Your task to perform on an android device: turn off notifications in google photos Image 0: 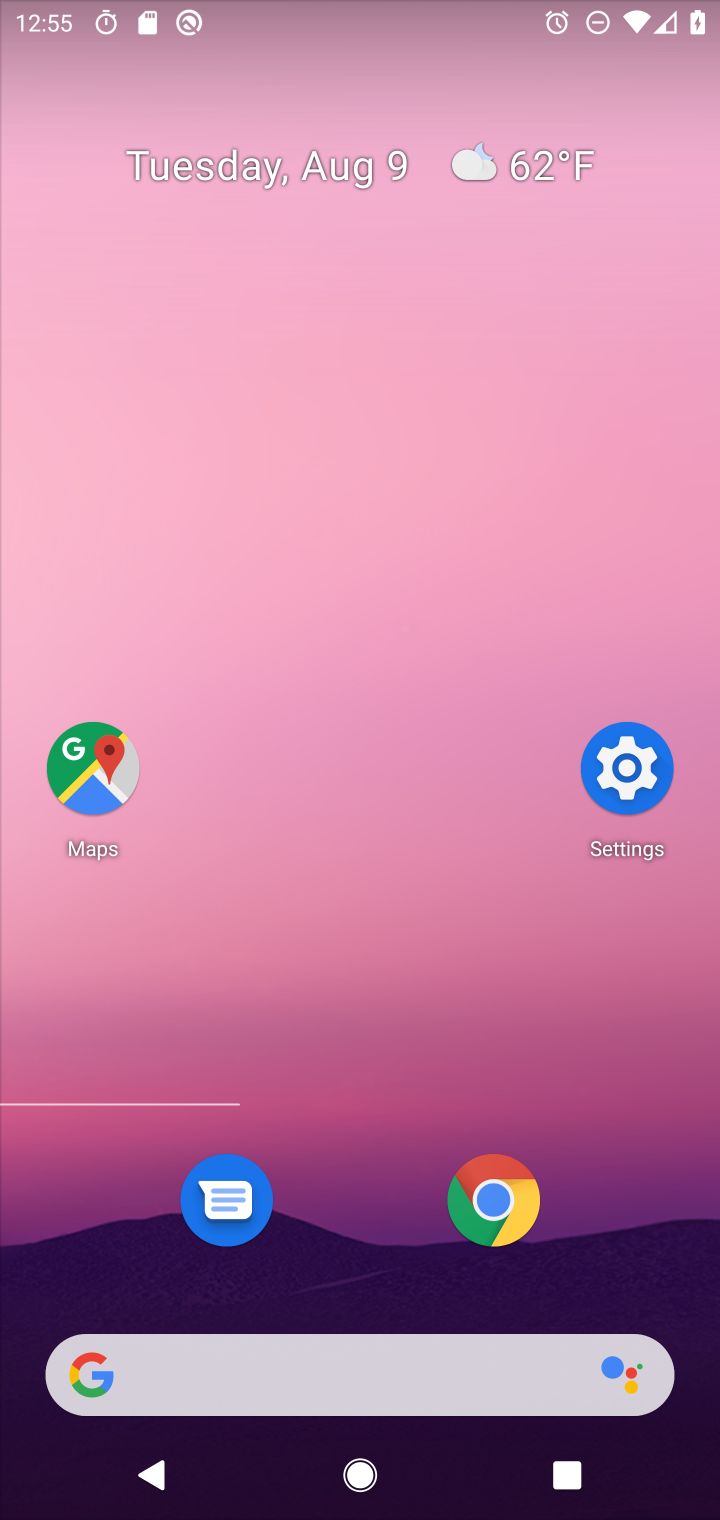
Step 0: drag from (323, 1348) to (584, 191)
Your task to perform on an android device: turn off notifications in google photos Image 1: 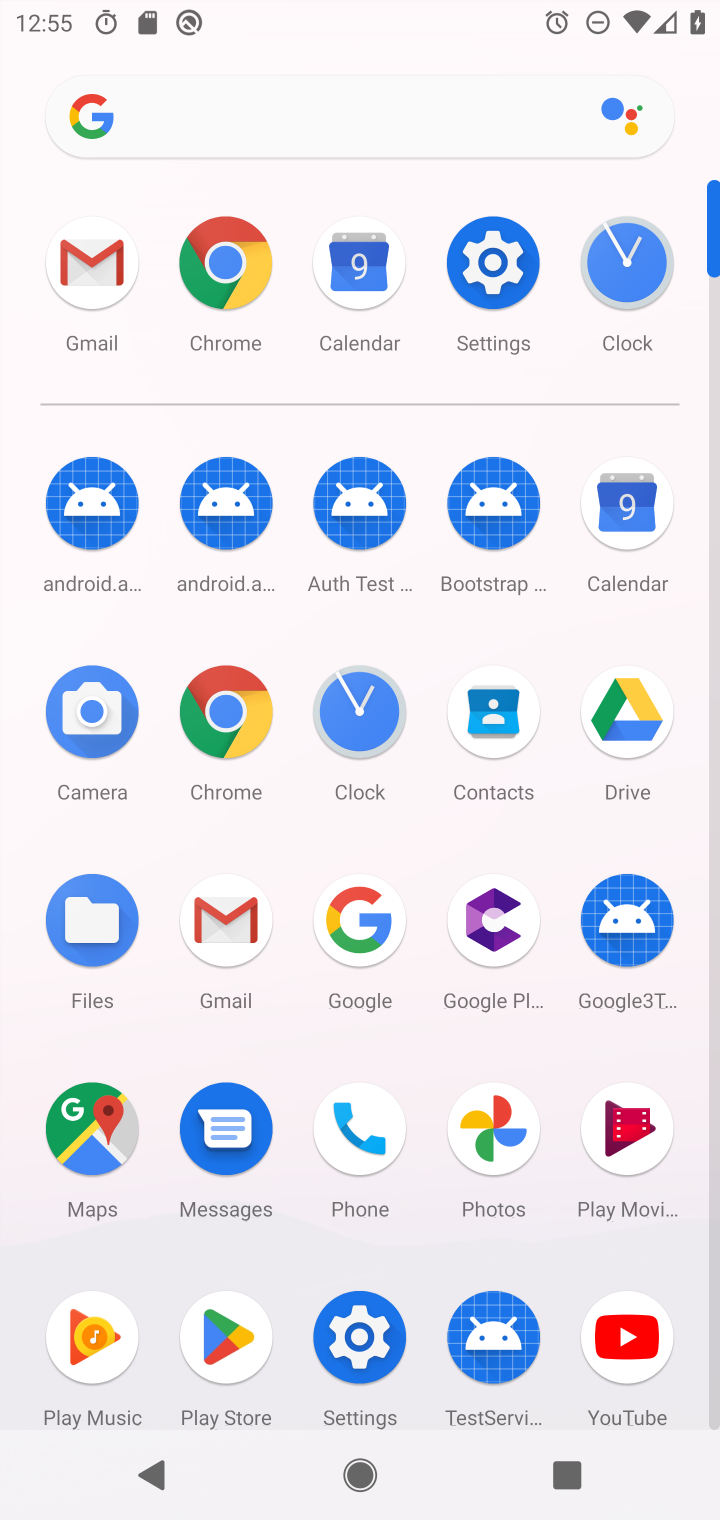
Step 1: click (483, 1136)
Your task to perform on an android device: turn off notifications in google photos Image 2: 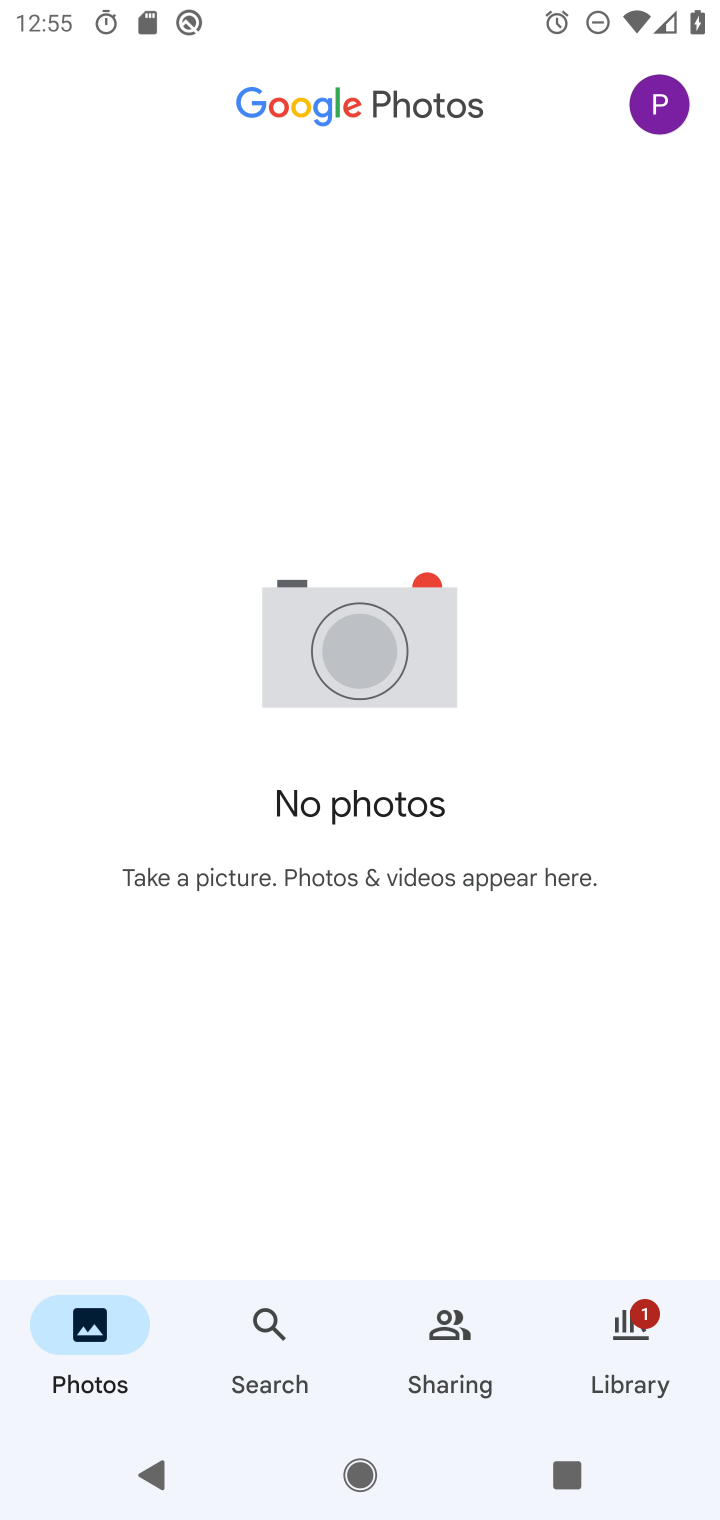
Step 2: click (655, 108)
Your task to perform on an android device: turn off notifications in google photos Image 3: 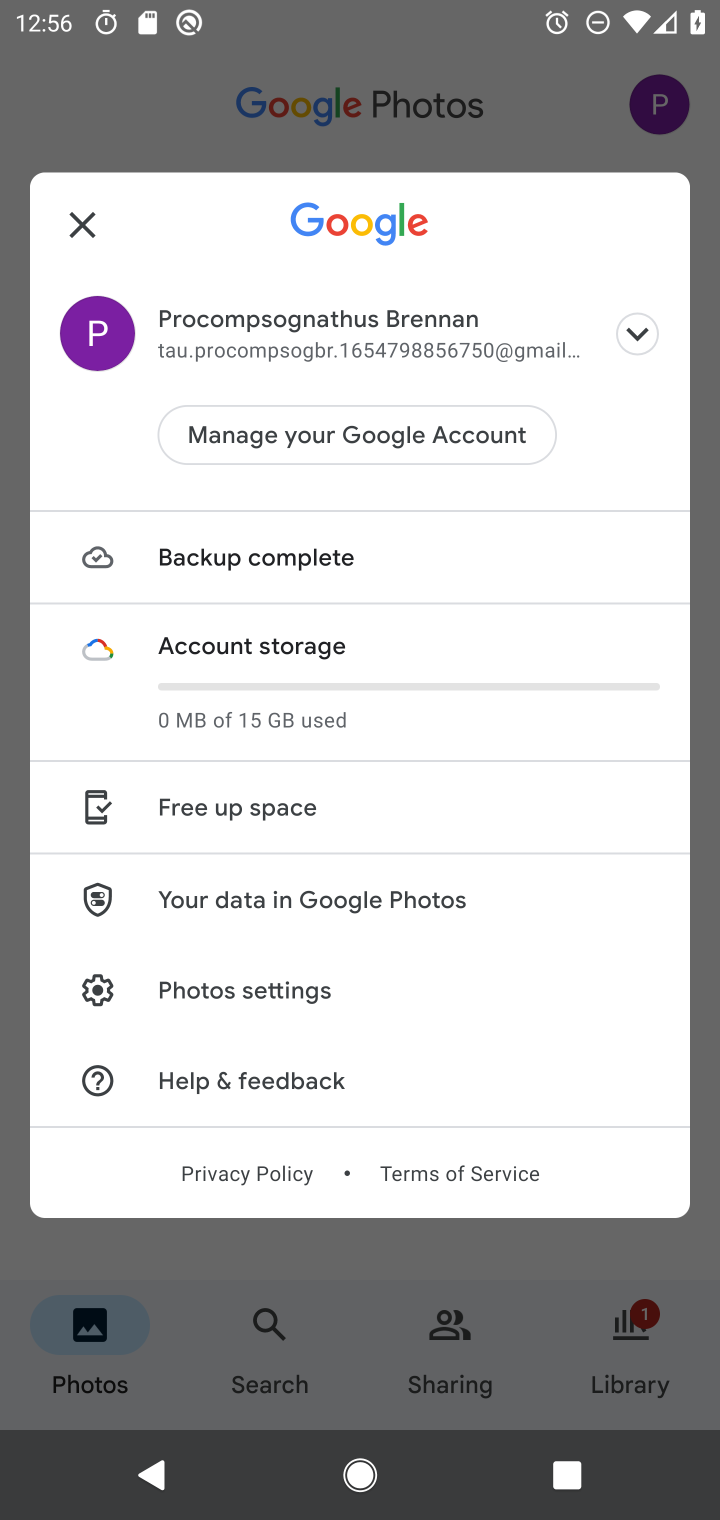
Step 3: click (237, 993)
Your task to perform on an android device: turn off notifications in google photos Image 4: 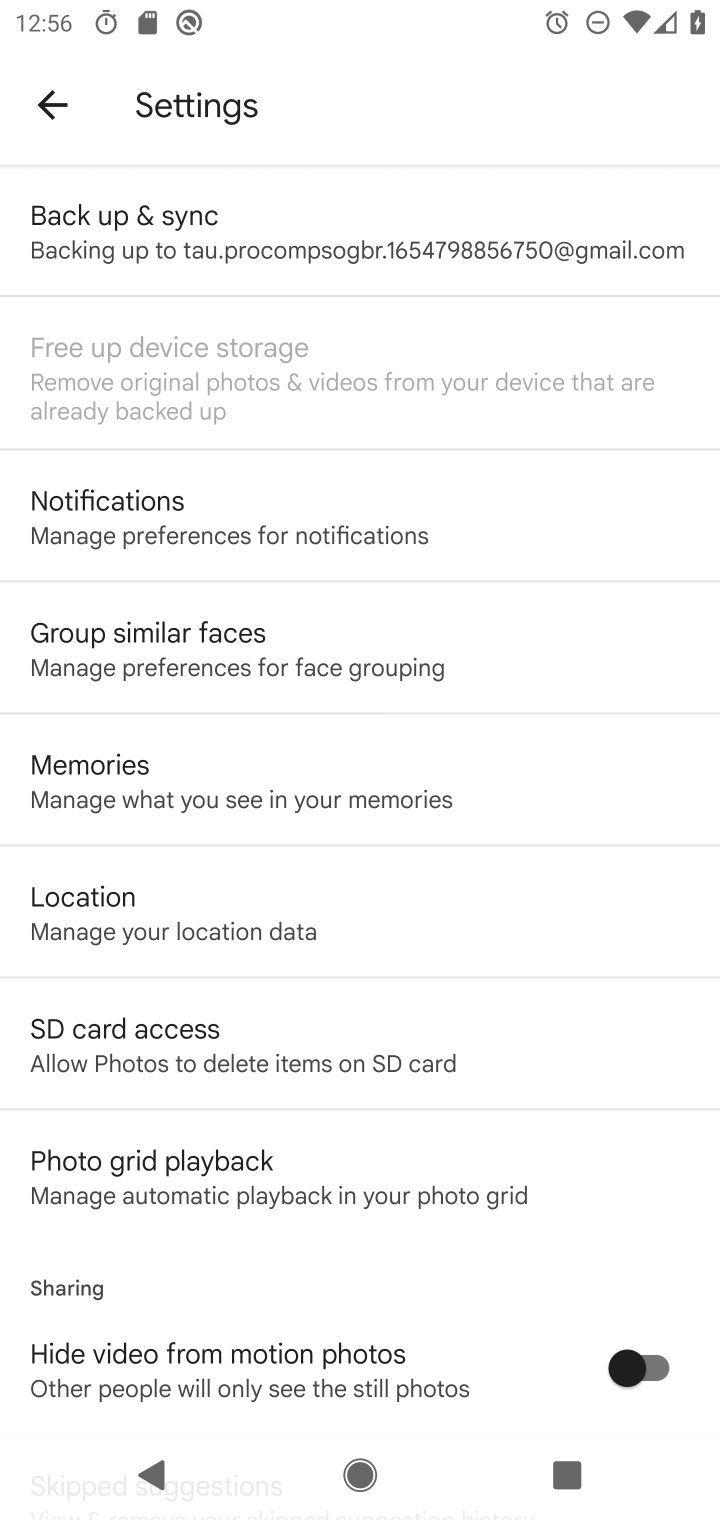
Step 4: click (190, 515)
Your task to perform on an android device: turn off notifications in google photos Image 5: 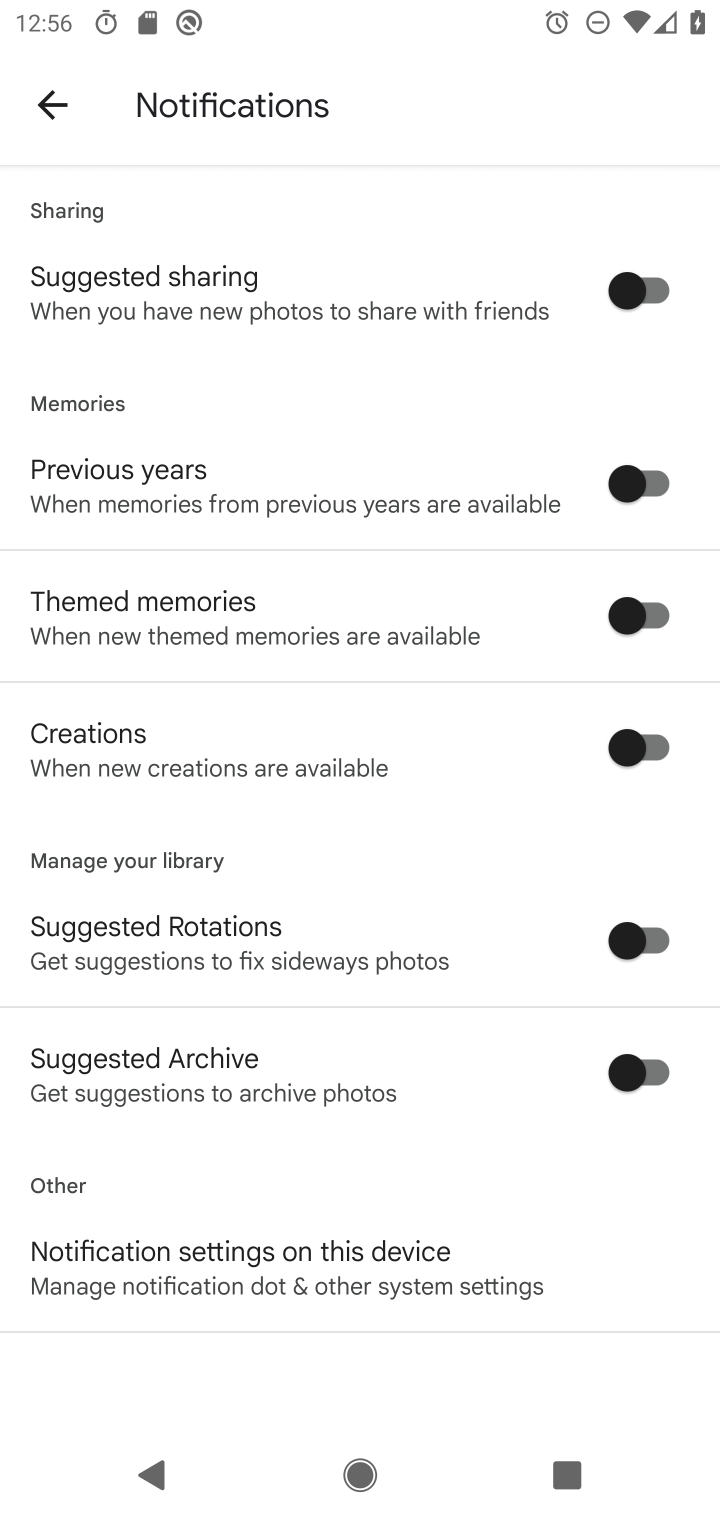
Step 5: drag from (314, 1178) to (592, 11)
Your task to perform on an android device: turn off notifications in google photos Image 6: 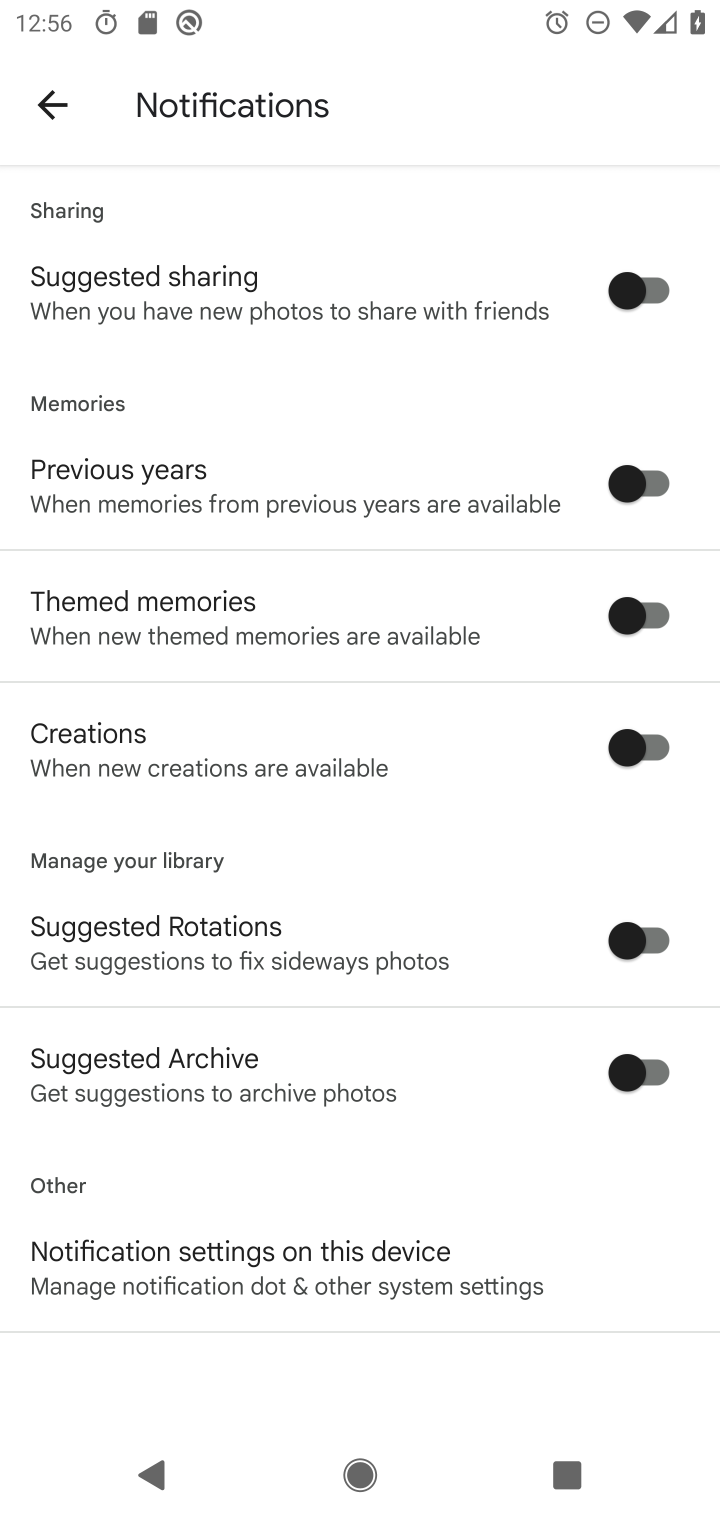
Step 6: click (269, 1264)
Your task to perform on an android device: turn off notifications in google photos Image 7: 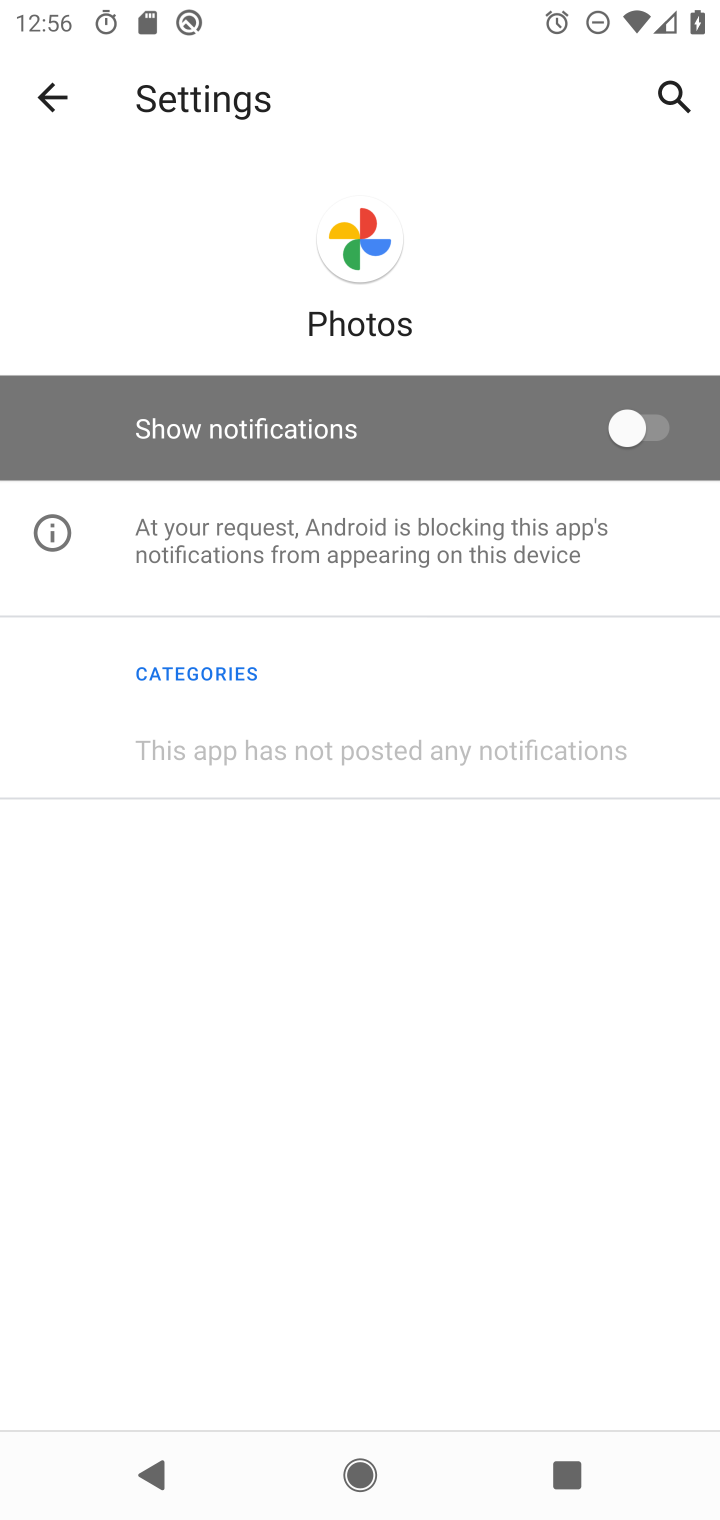
Step 7: task complete